Your task to perform on an android device: delete location history Image 0: 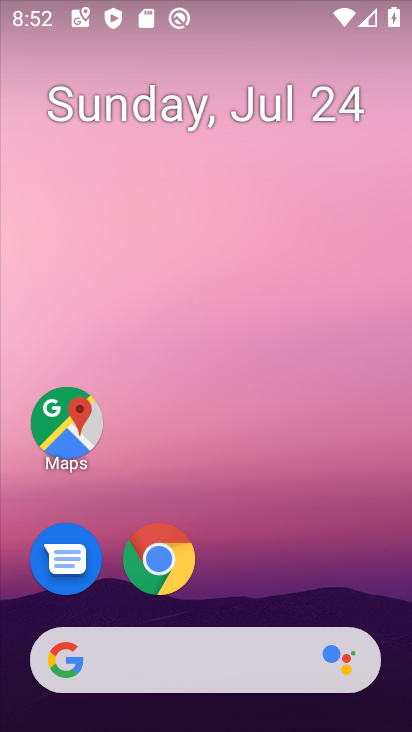
Step 0: click (70, 421)
Your task to perform on an android device: delete location history Image 1: 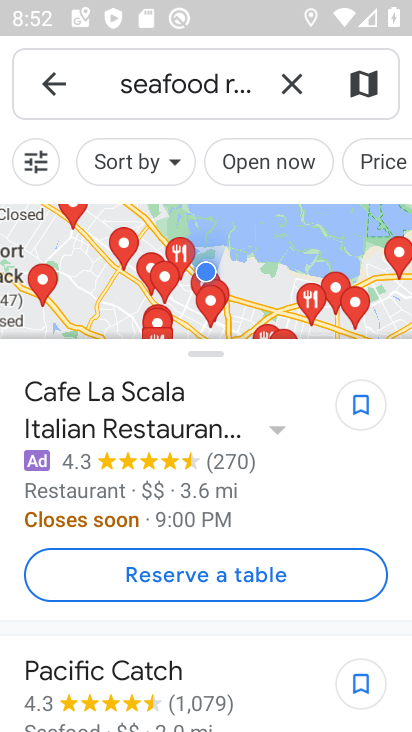
Step 1: click (46, 76)
Your task to perform on an android device: delete location history Image 2: 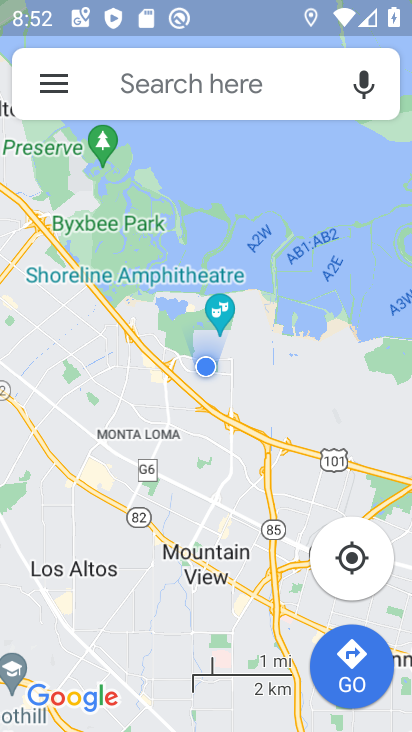
Step 2: click (62, 78)
Your task to perform on an android device: delete location history Image 3: 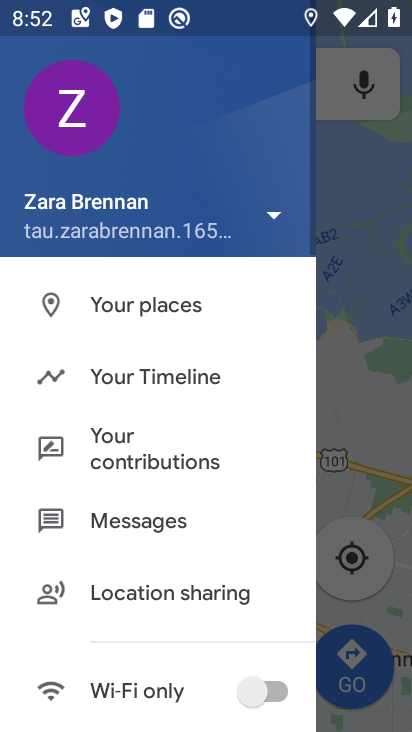
Step 3: click (162, 386)
Your task to perform on an android device: delete location history Image 4: 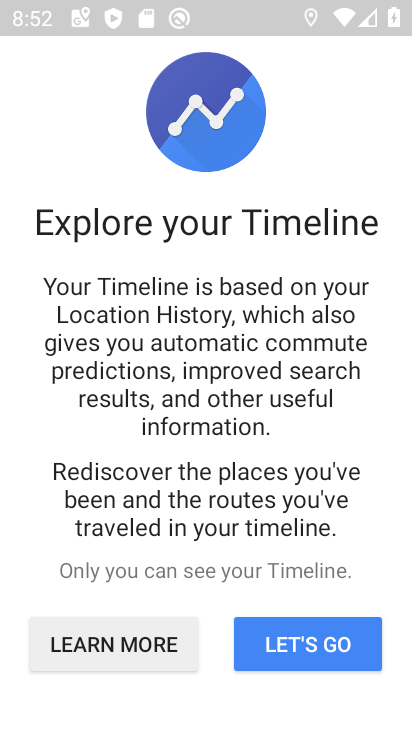
Step 4: click (297, 650)
Your task to perform on an android device: delete location history Image 5: 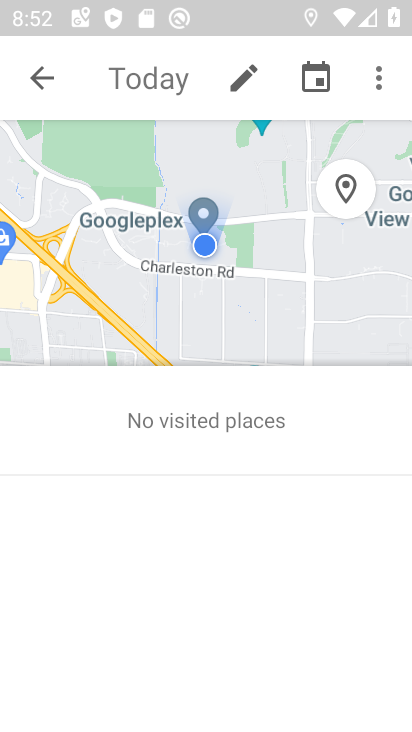
Step 5: click (384, 64)
Your task to perform on an android device: delete location history Image 6: 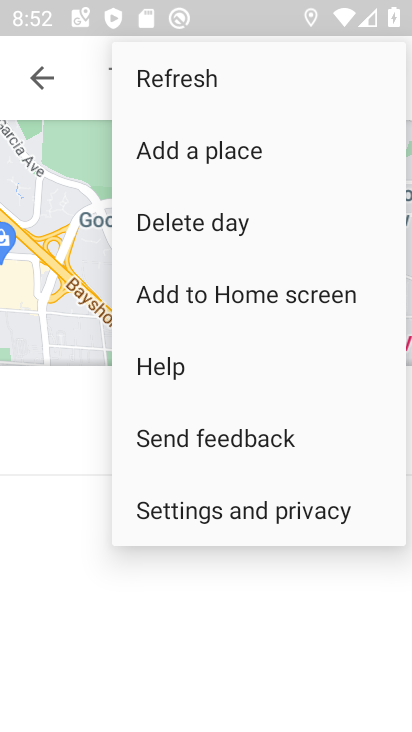
Step 6: click (175, 516)
Your task to perform on an android device: delete location history Image 7: 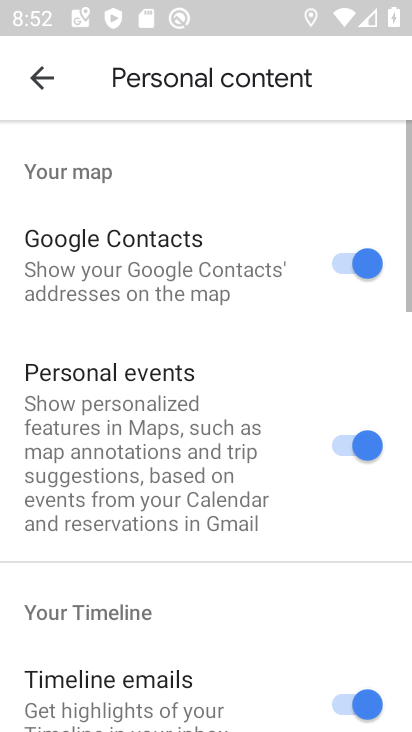
Step 7: drag from (131, 614) to (235, 13)
Your task to perform on an android device: delete location history Image 8: 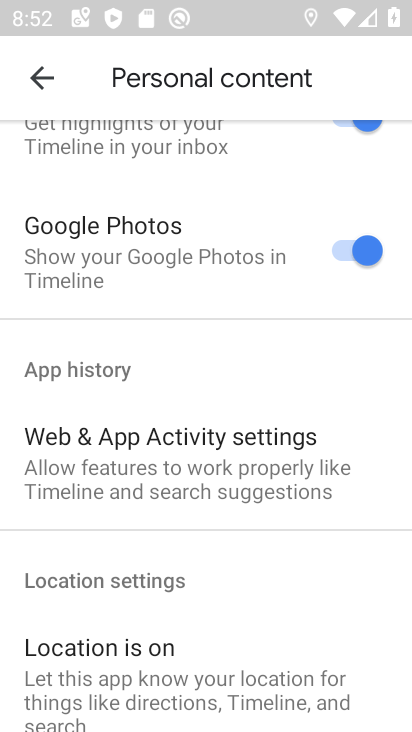
Step 8: drag from (126, 584) to (234, 165)
Your task to perform on an android device: delete location history Image 9: 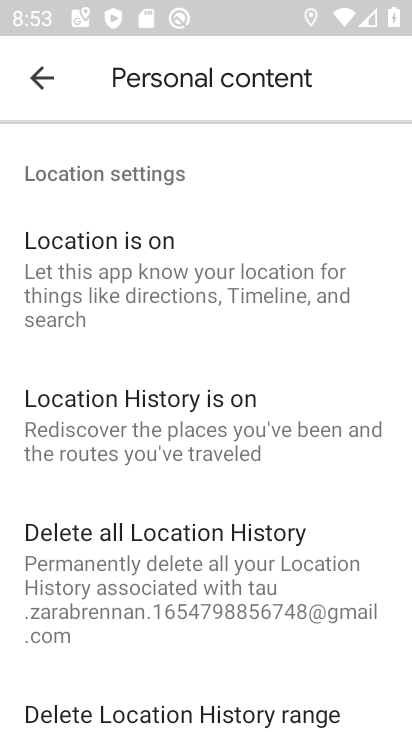
Step 9: click (172, 568)
Your task to perform on an android device: delete location history Image 10: 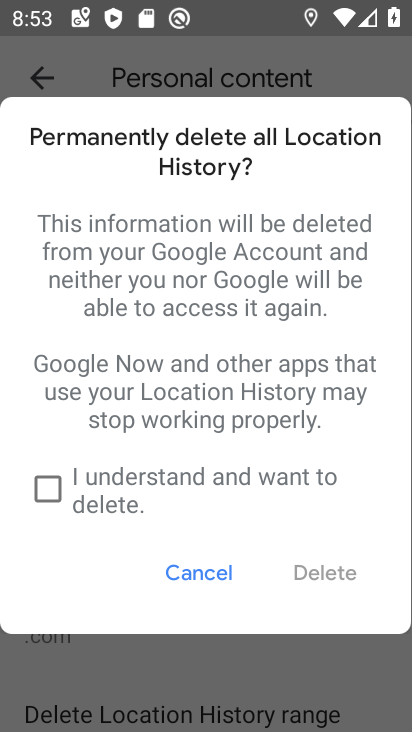
Step 10: click (98, 475)
Your task to perform on an android device: delete location history Image 11: 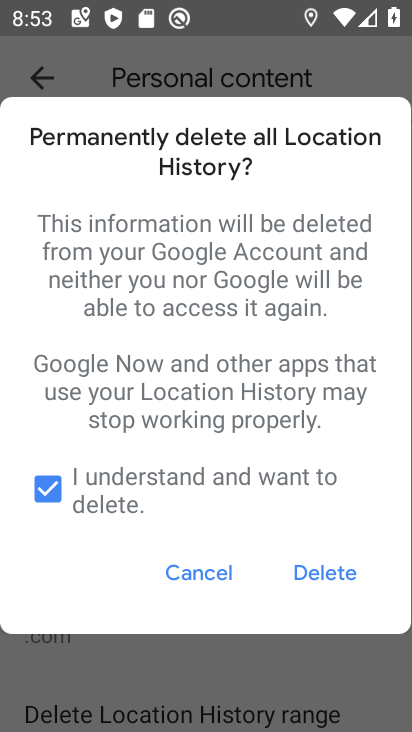
Step 11: click (325, 568)
Your task to perform on an android device: delete location history Image 12: 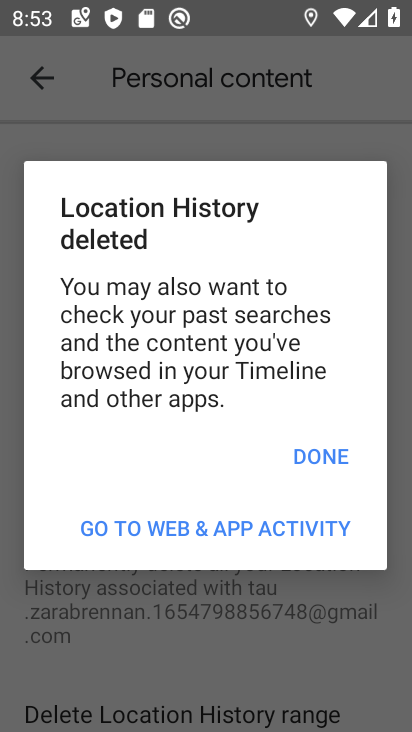
Step 12: click (337, 463)
Your task to perform on an android device: delete location history Image 13: 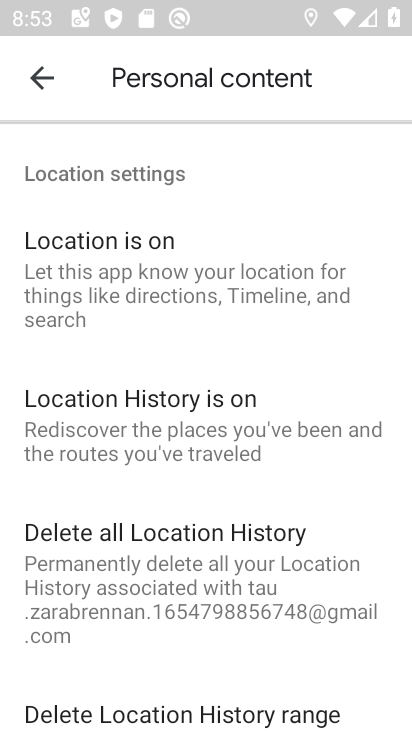
Step 13: task complete